Your task to perform on an android device: When is my next meeting? Image 0: 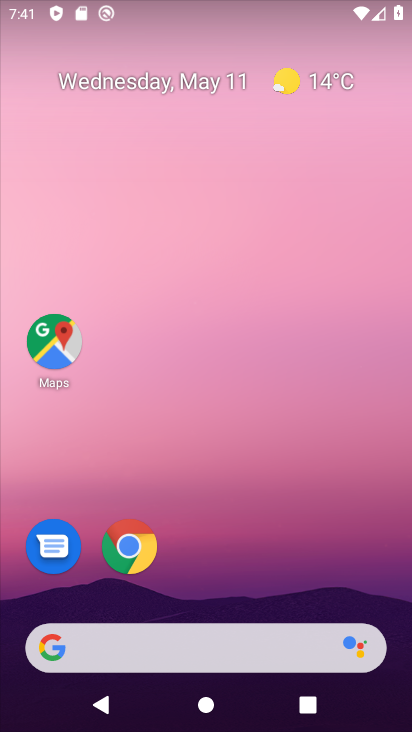
Step 0: drag from (253, 507) to (303, 215)
Your task to perform on an android device: When is my next meeting? Image 1: 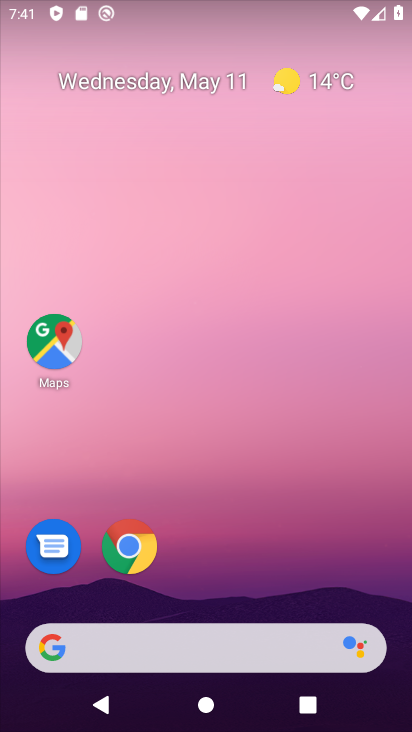
Step 1: drag from (302, 571) to (312, 219)
Your task to perform on an android device: When is my next meeting? Image 2: 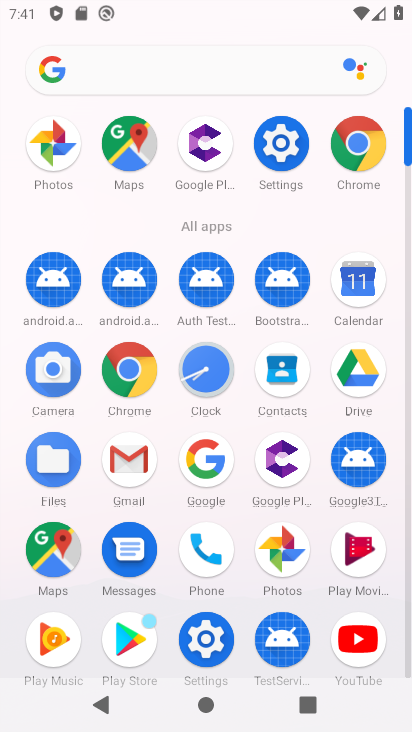
Step 2: click (362, 293)
Your task to perform on an android device: When is my next meeting? Image 3: 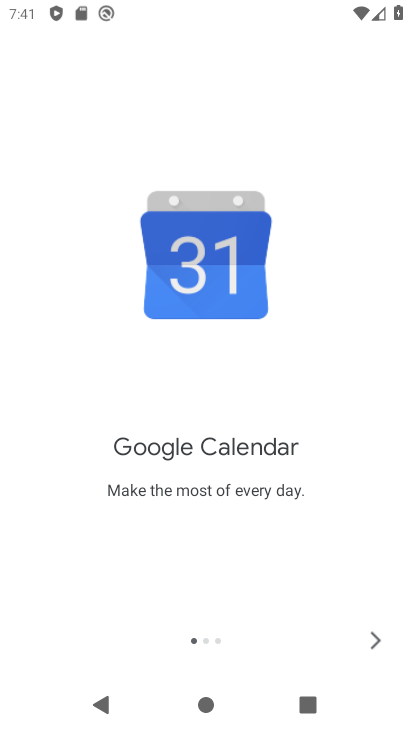
Step 3: click (375, 647)
Your task to perform on an android device: When is my next meeting? Image 4: 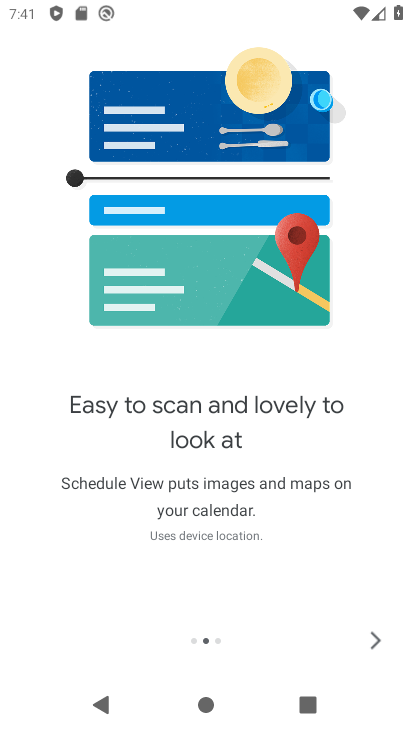
Step 4: click (375, 647)
Your task to perform on an android device: When is my next meeting? Image 5: 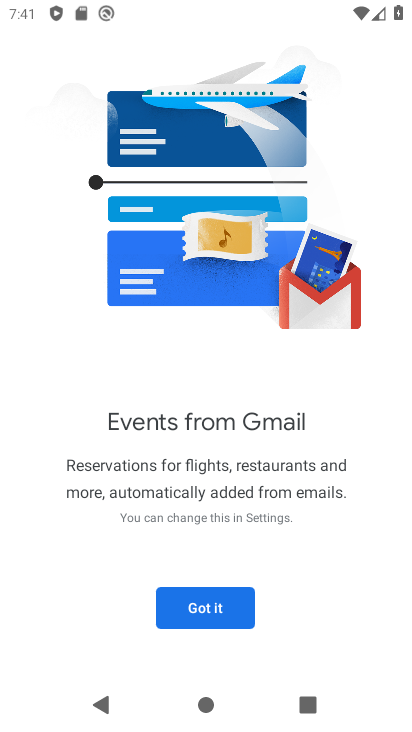
Step 5: click (199, 619)
Your task to perform on an android device: When is my next meeting? Image 6: 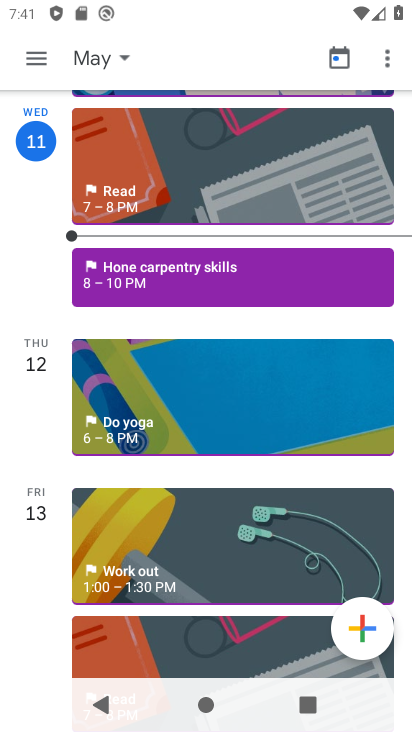
Step 6: task complete